Your task to perform on an android device: Is it going to rain today? Image 0: 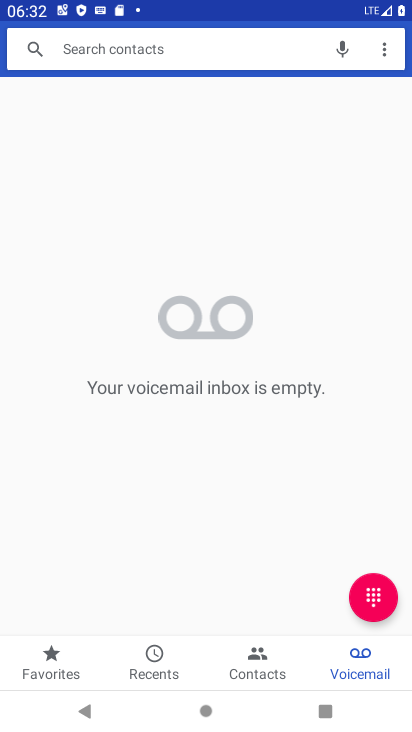
Step 0: press home button
Your task to perform on an android device: Is it going to rain today? Image 1: 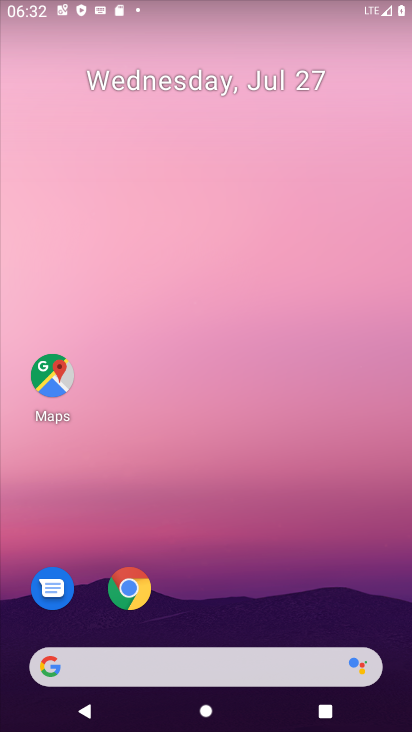
Step 1: drag from (273, 665) to (341, 178)
Your task to perform on an android device: Is it going to rain today? Image 2: 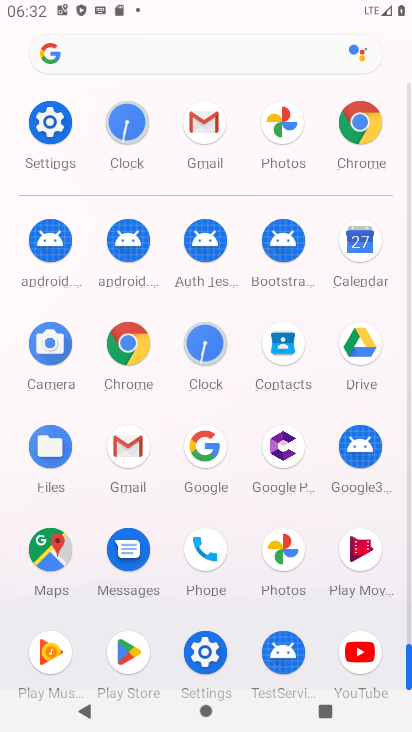
Step 2: click (218, 440)
Your task to perform on an android device: Is it going to rain today? Image 3: 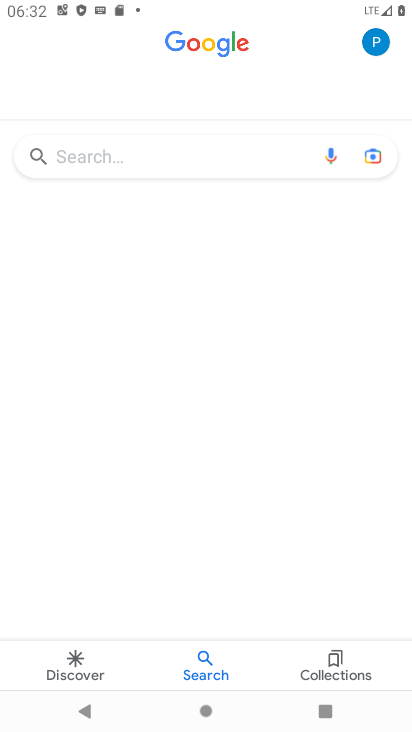
Step 3: click (193, 157)
Your task to perform on an android device: Is it going to rain today? Image 4: 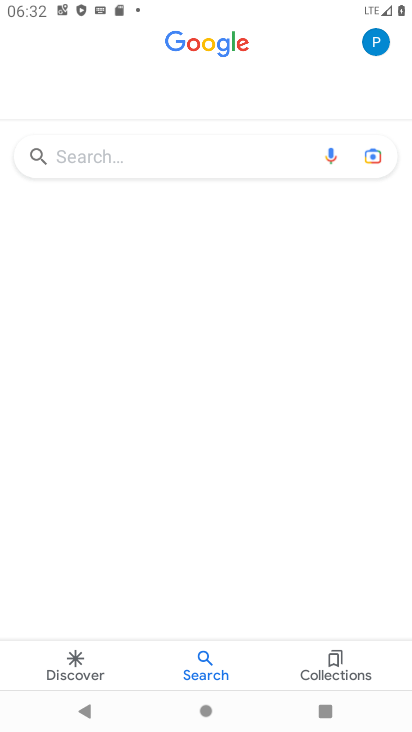
Step 4: click (193, 157)
Your task to perform on an android device: Is it going to rain today? Image 5: 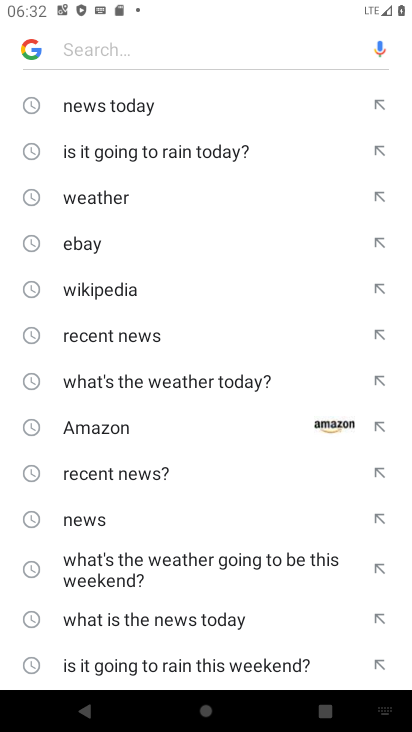
Step 5: click (177, 154)
Your task to perform on an android device: Is it going to rain today? Image 6: 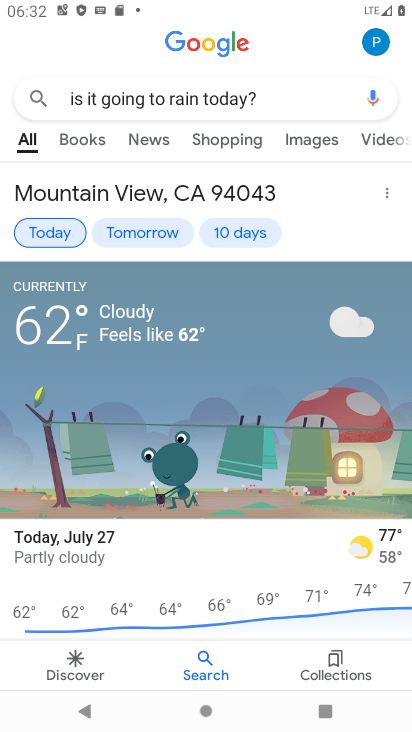
Step 6: task complete